Your task to perform on an android device: Open the stopwatch Image 0: 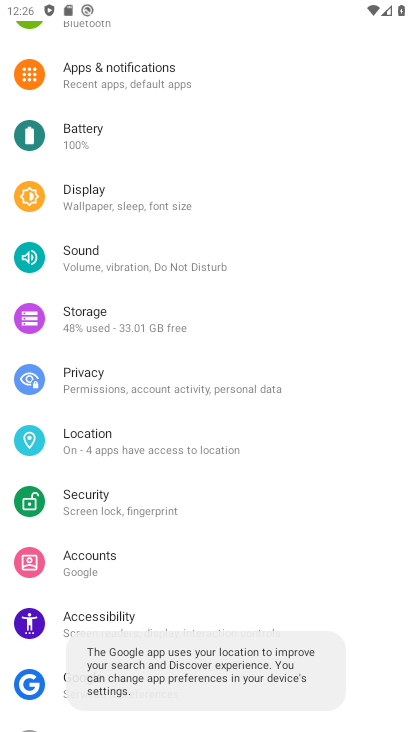
Step 0: press back button
Your task to perform on an android device: Open the stopwatch Image 1: 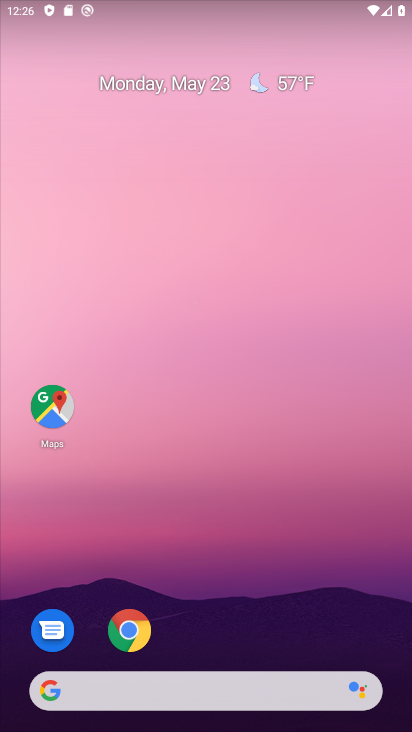
Step 1: drag from (273, 588) to (177, 31)
Your task to perform on an android device: Open the stopwatch Image 2: 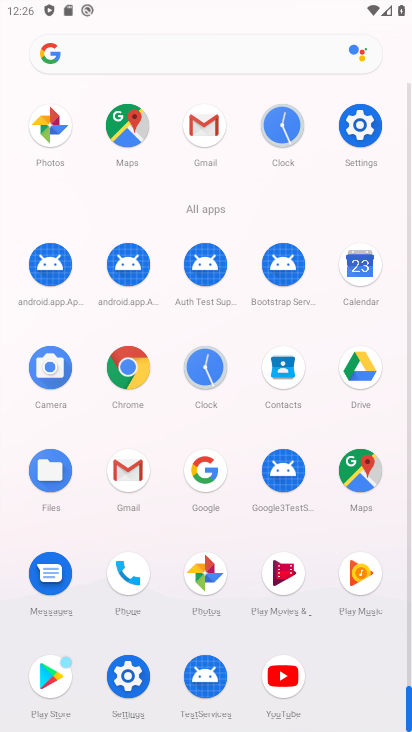
Step 2: click (201, 366)
Your task to perform on an android device: Open the stopwatch Image 3: 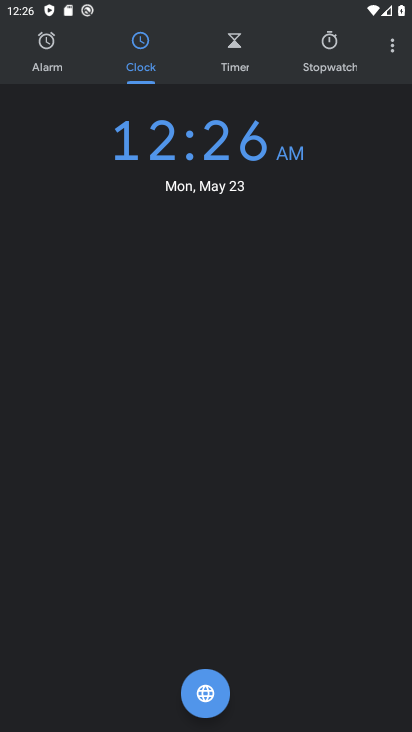
Step 3: click (322, 51)
Your task to perform on an android device: Open the stopwatch Image 4: 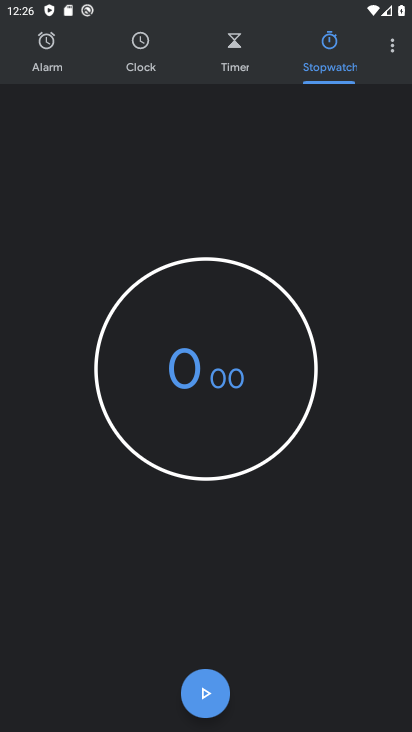
Step 4: task complete